Your task to perform on an android device: check the backup settings in the google photos Image 0: 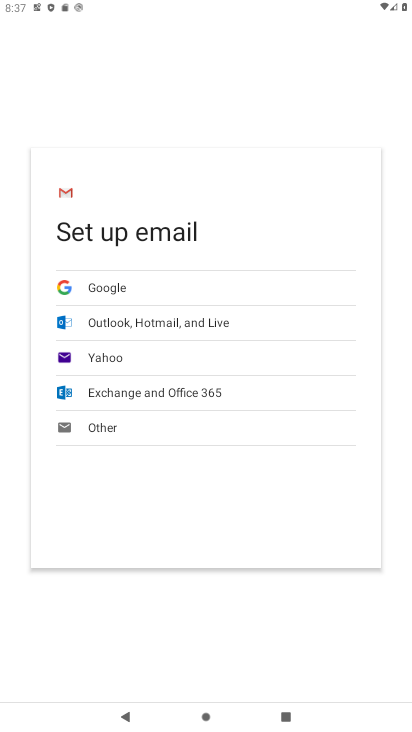
Step 0: press home button
Your task to perform on an android device: check the backup settings in the google photos Image 1: 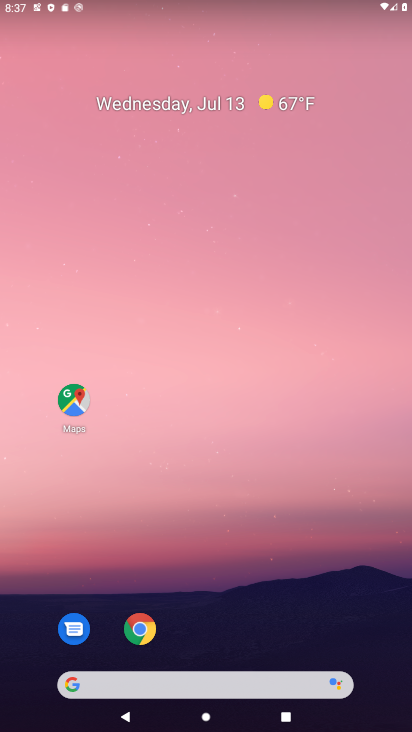
Step 1: drag from (195, 606) to (248, 10)
Your task to perform on an android device: check the backup settings in the google photos Image 2: 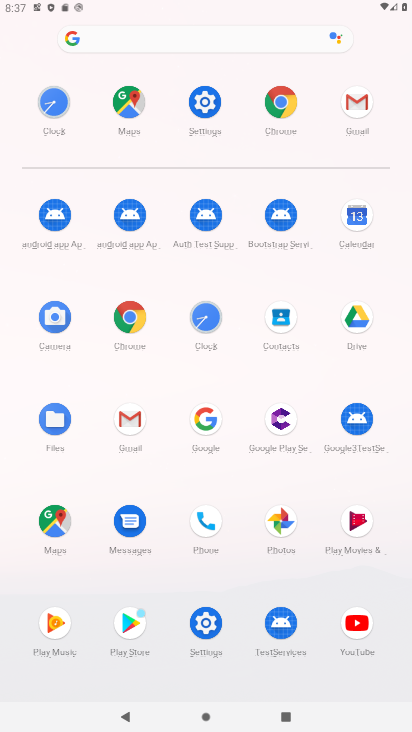
Step 2: click (288, 526)
Your task to perform on an android device: check the backup settings in the google photos Image 3: 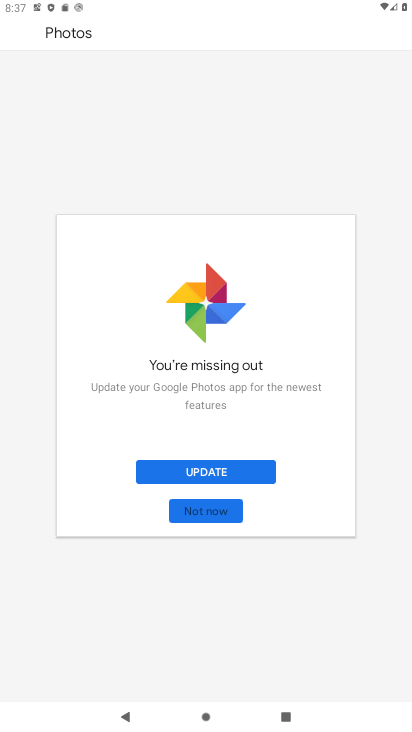
Step 3: click (198, 518)
Your task to perform on an android device: check the backup settings in the google photos Image 4: 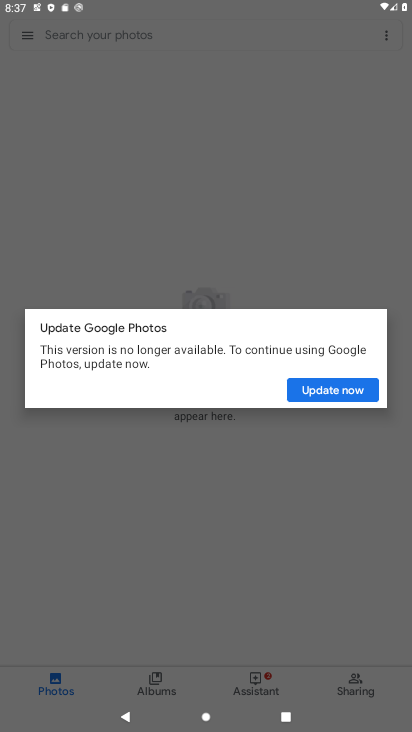
Step 4: click (343, 381)
Your task to perform on an android device: check the backup settings in the google photos Image 5: 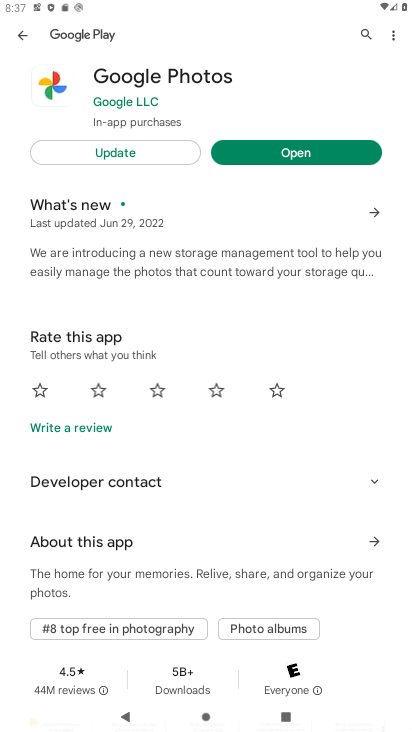
Step 5: click (306, 148)
Your task to perform on an android device: check the backup settings in the google photos Image 6: 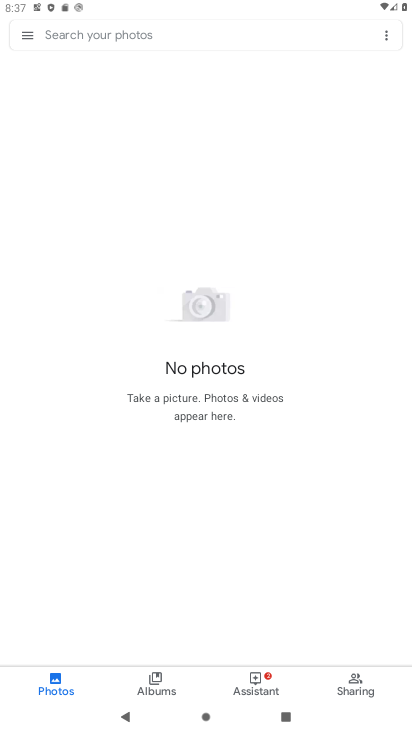
Step 6: click (20, 32)
Your task to perform on an android device: check the backup settings in the google photos Image 7: 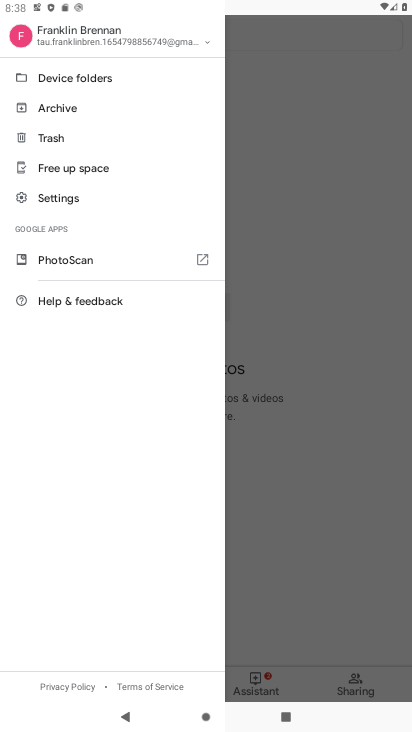
Step 7: click (62, 192)
Your task to perform on an android device: check the backup settings in the google photos Image 8: 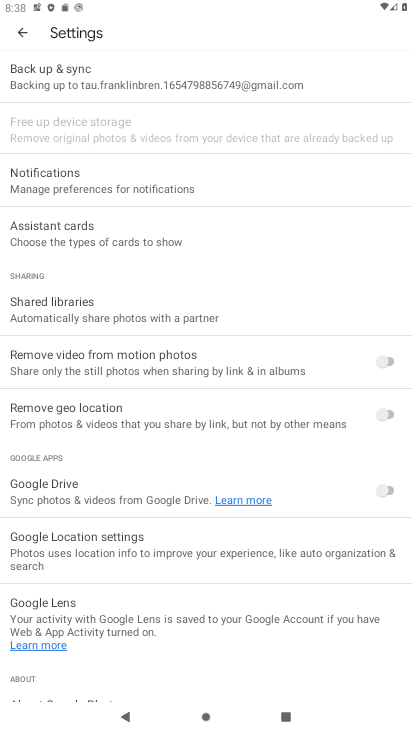
Step 8: click (74, 83)
Your task to perform on an android device: check the backup settings in the google photos Image 9: 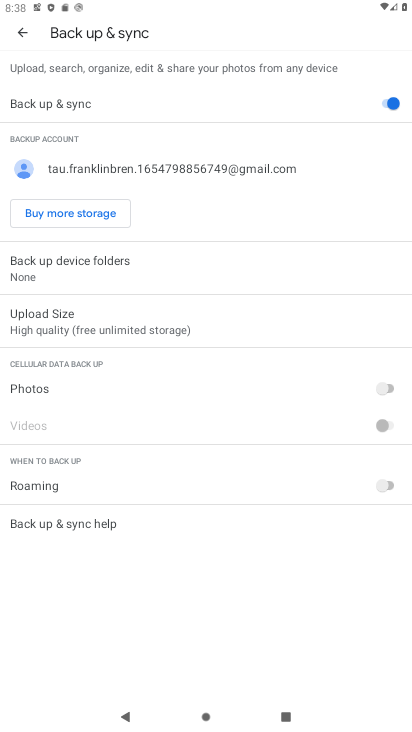
Step 9: task complete